Your task to perform on an android device: Go to network settings Image 0: 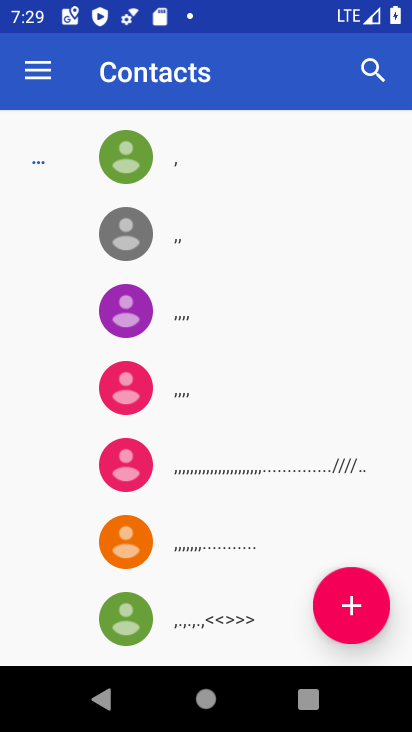
Step 0: press home button
Your task to perform on an android device: Go to network settings Image 1: 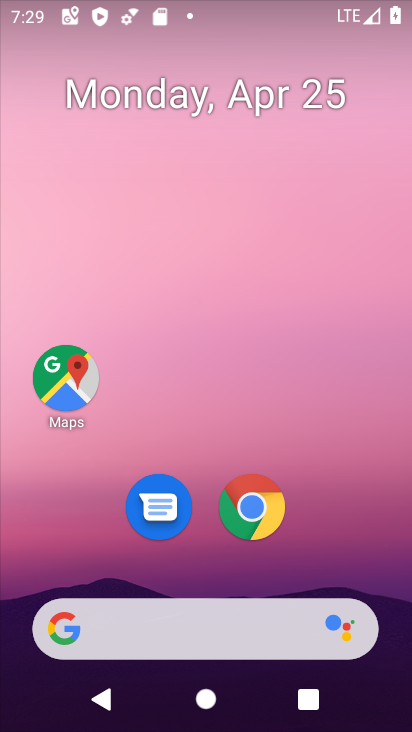
Step 1: drag from (343, 499) to (187, 68)
Your task to perform on an android device: Go to network settings Image 2: 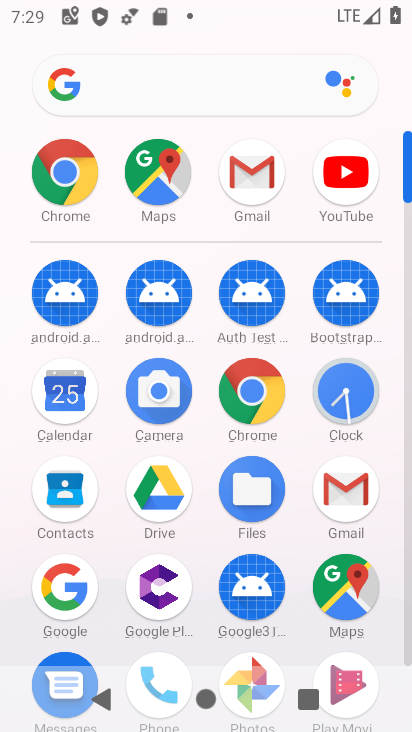
Step 2: click (404, 649)
Your task to perform on an android device: Go to network settings Image 3: 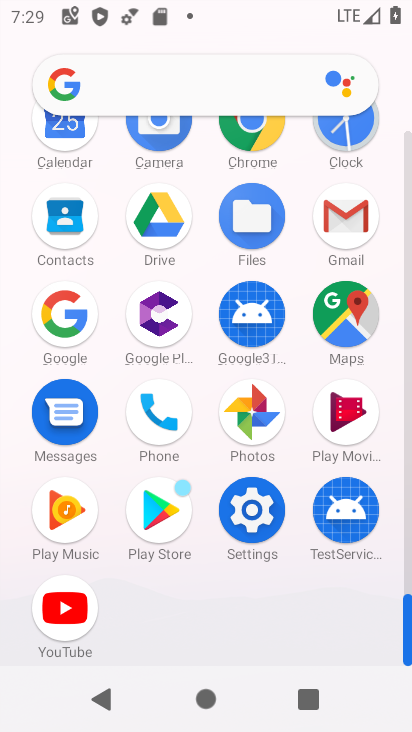
Step 3: click (232, 517)
Your task to perform on an android device: Go to network settings Image 4: 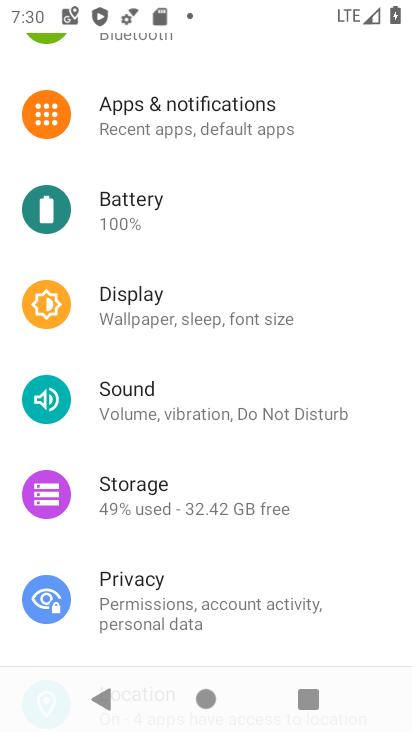
Step 4: drag from (224, 189) to (358, 500)
Your task to perform on an android device: Go to network settings Image 5: 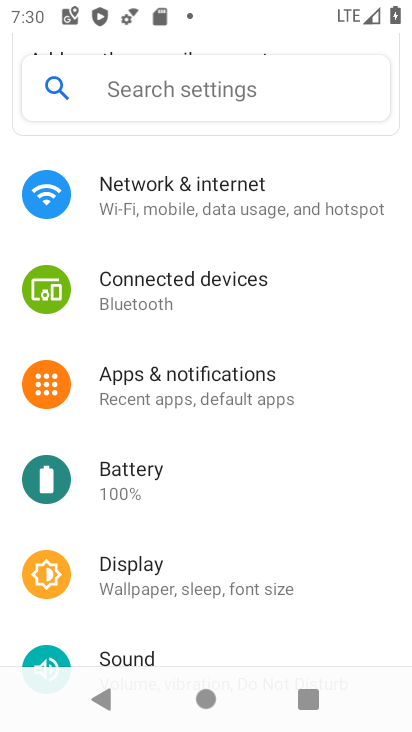
Step 5: click (189, 218)
Your task to perform on an android device: Go to network settings Image 6: 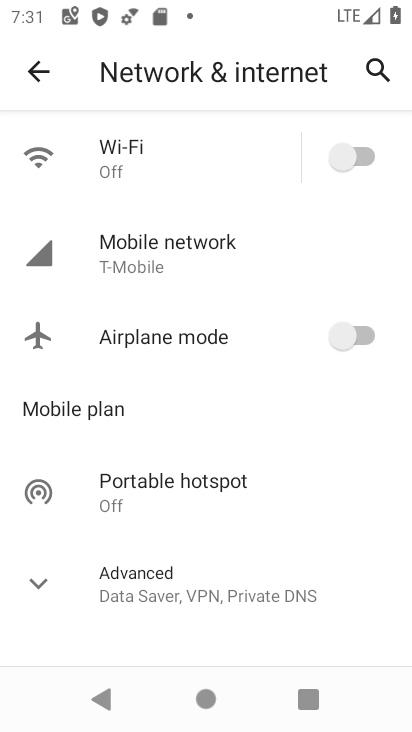
Step 6: task complete